Your task to perform on an android device: open the mobile data screen to see how much data has been used Image 0: 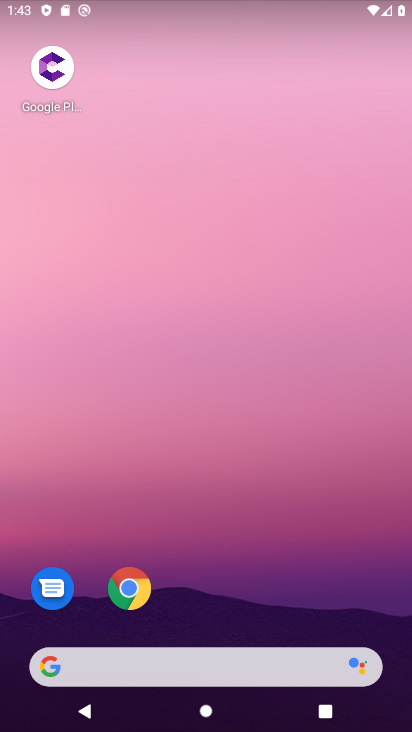
Step 0: drag from (180, 622) to (73, 38)
Your task to perform on an android device: open the mobile data screen to see how much data has been used Image 1: 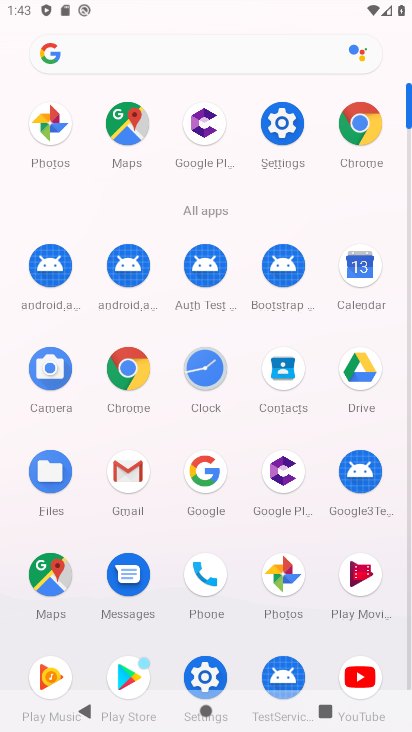
Step 1: click (211, 677)
Your task to perform on an android device: open the mobile data screen to see how much data has been used Image 2: 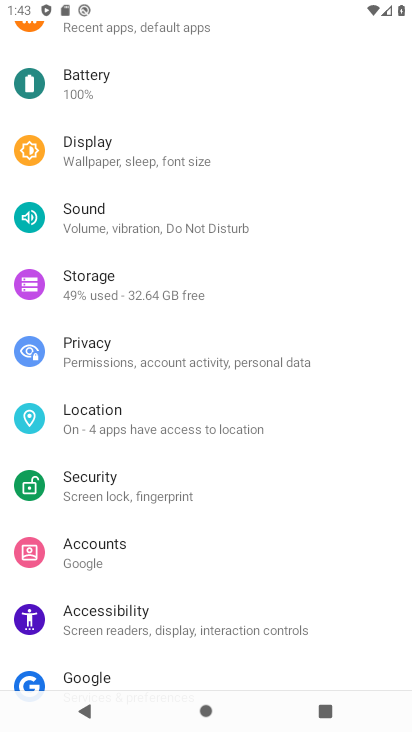
Step 2: drag from (142, 133) to (143, 336)
Your task to perform on an android device: open the mobile data screen to see how much data has been used Image 3: 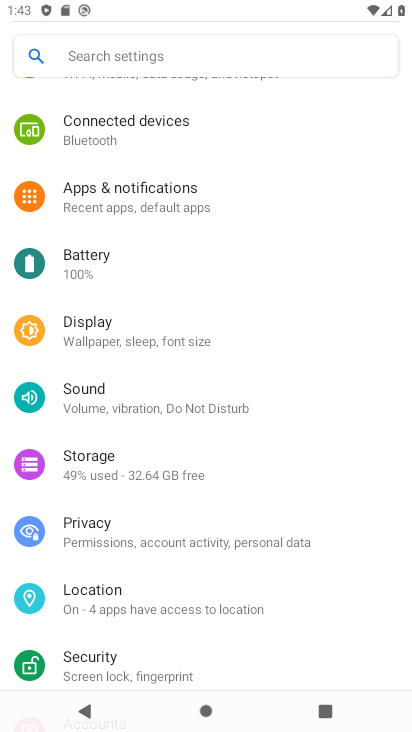
Step 3: drag from (102, 133) to (100, 490)
Your task to perform on an android device: open the mobile data screen to see how much data has been used Image 4: 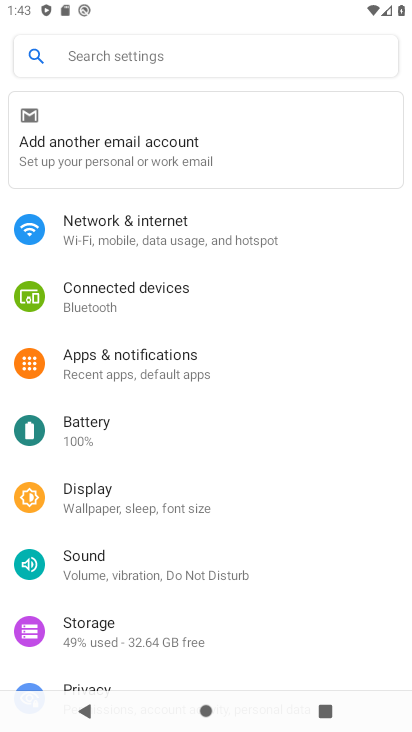
Step 4: click (155, 225)
Your task to perform on an android device: open the mobile data screen to see how much data has been used Image 5: 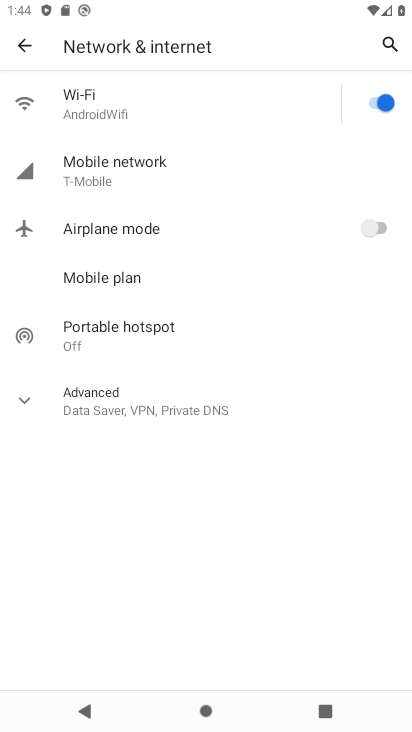
Step 5: click (108, 171)
Your task to perform on an android device: open the mobile data screen to see how much data has been used Image 6: 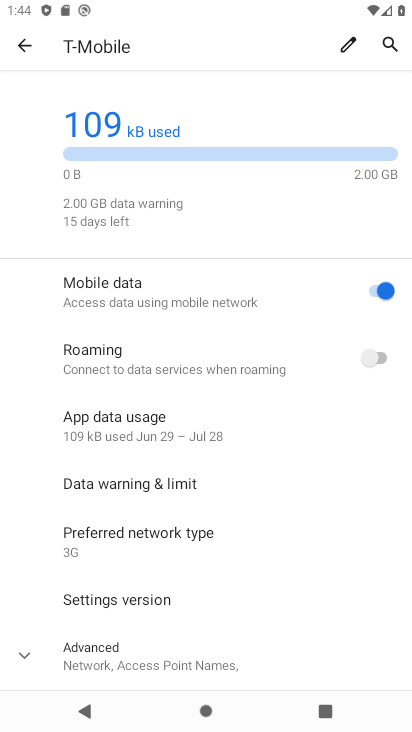
Step 6: task complete